Your task to perform on an android device: change alarm snooze length Image 0: 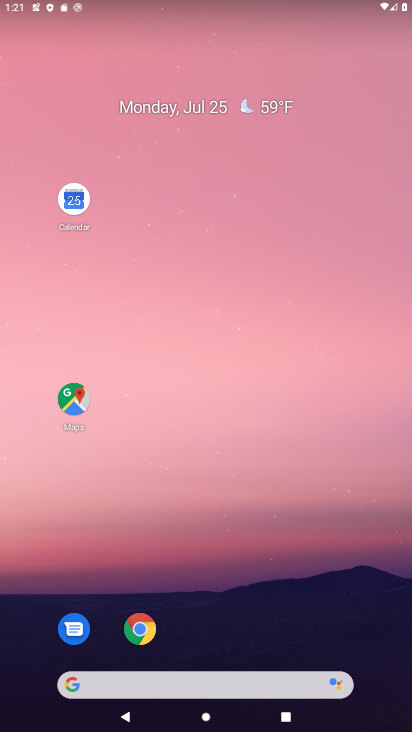
Step 0: drag from (252, 621) to (249, 136)
Your task to perform on an android device: change alarm snooze length Image 1: 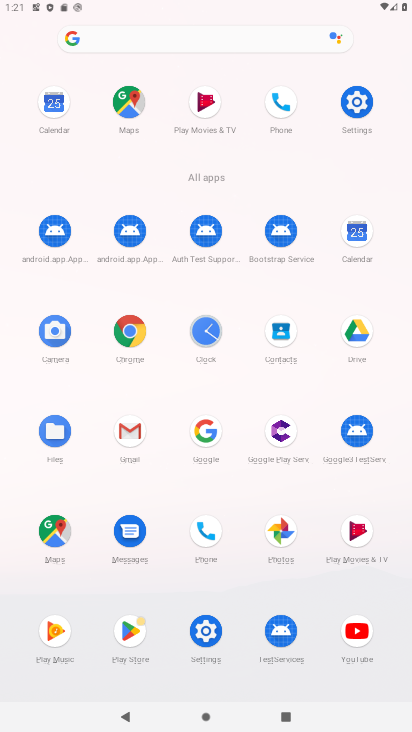
Step 1: drag from (205, 338) to (147, 208)
Your task to perform on an android device: change alarm snooze length Image 2: 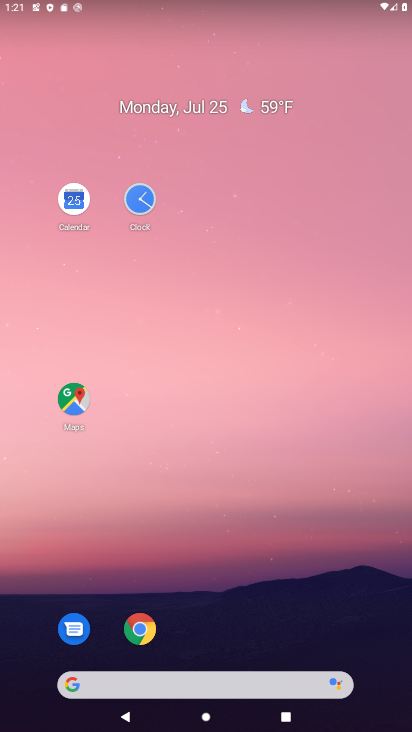
Step 2: click (144, 207)
Your task to perform on an android device: change alarm snooze length Image 3: 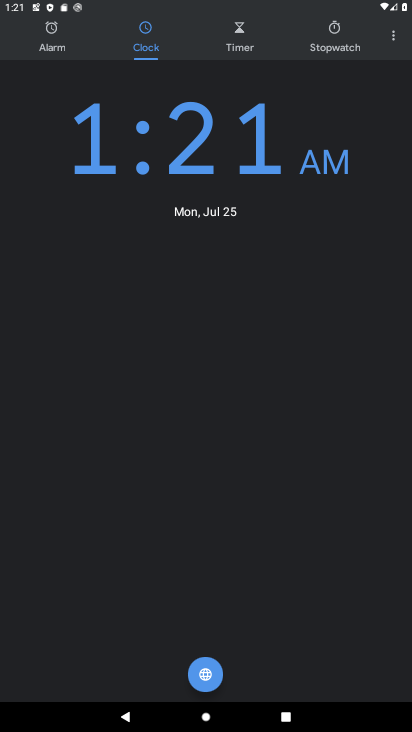
Step 3: click (391, 41)
Your task to perform on an android device: change alarm snooze length Image 4: 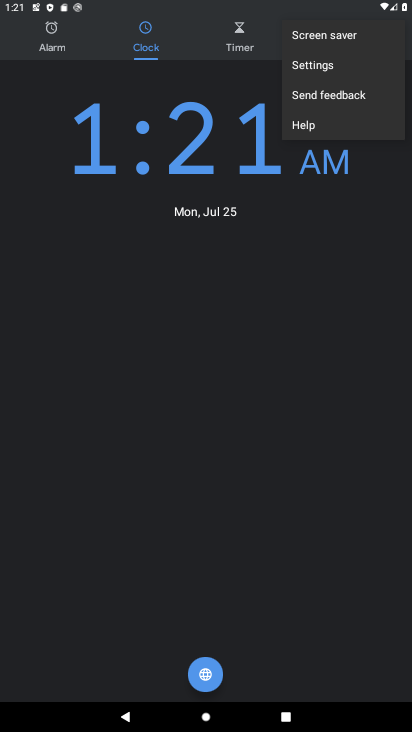
Step 4: click (307, 67)
Your task to perform on an android device: change alarm snooze length Image 5: 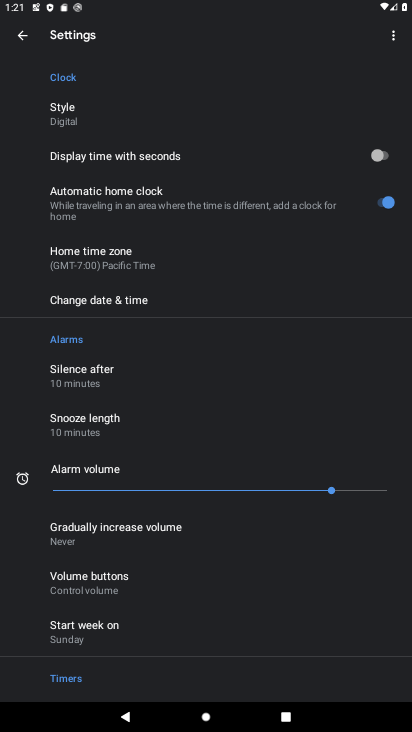
Step 5: click (111, 433)
Your task to perform on an android device: change alarm snooze length Image 6: 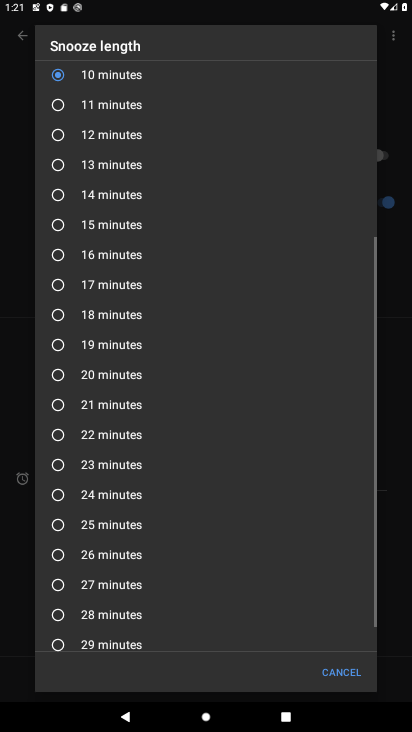
Step 6: click (85, 110)
Your task to perform on an android device: change alarm snooze length Image 7: 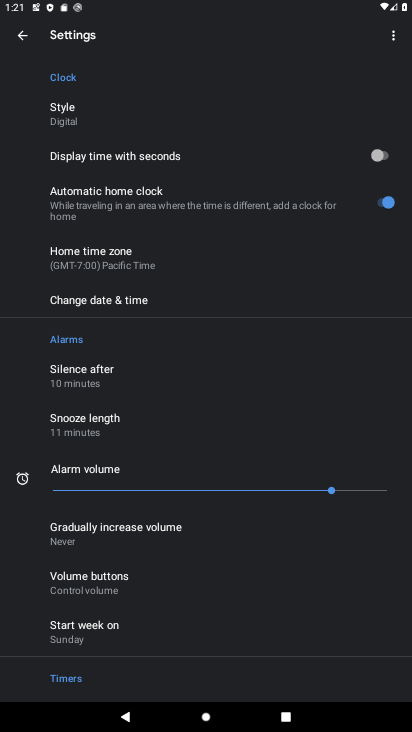
Step 7: task complete